Your task to perform on an android device: delete the emails in spam in the gmail app Image 0: 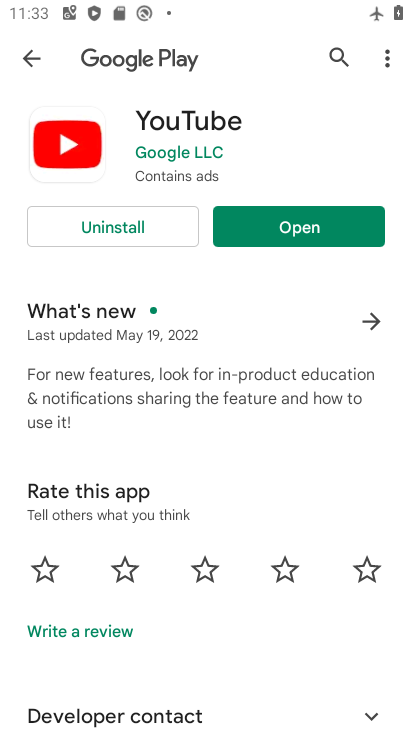
Step 0: press home button
Your task to perform on an android device: delete the emails in spam in the gmail app Image 1: 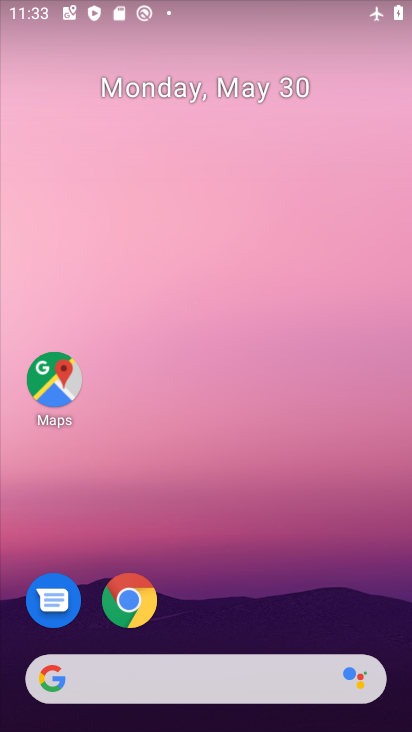
Step 1: drag from (226, 724) to (235, 94)
Your task to perform on an android device: delete the emails in spam in the gmail app Image 2: 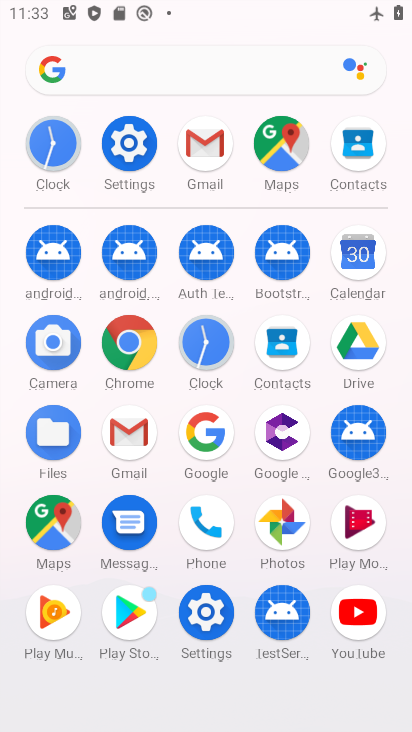
Step 2: click (131, 433)
Your task to perform on an android device: delete the emails in spam in the gmail app Image 3: 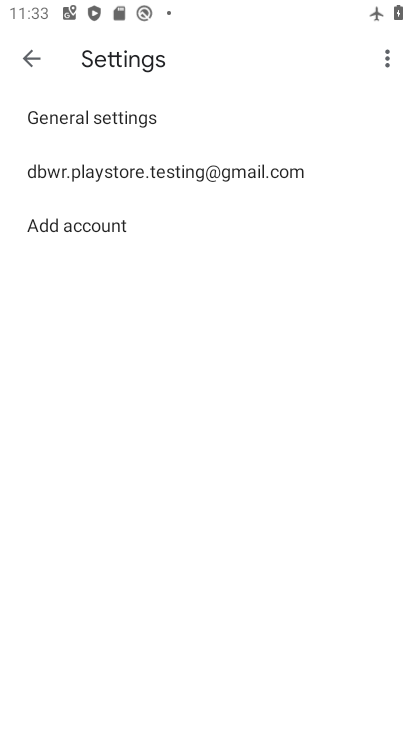
Step 3: click (131, 433)
Your task to perform on an android device: delete the emails in spam in the gmail app Image 4: 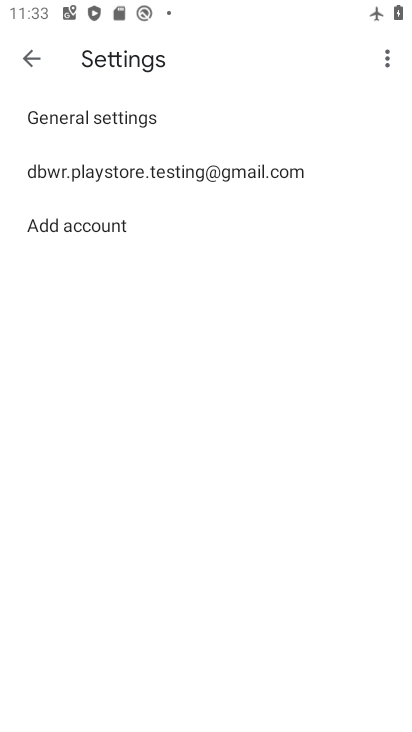
Step 4: click (26, 57)
Your task to perform on an android device: delete the emails in spam in the gmail app Image 5: 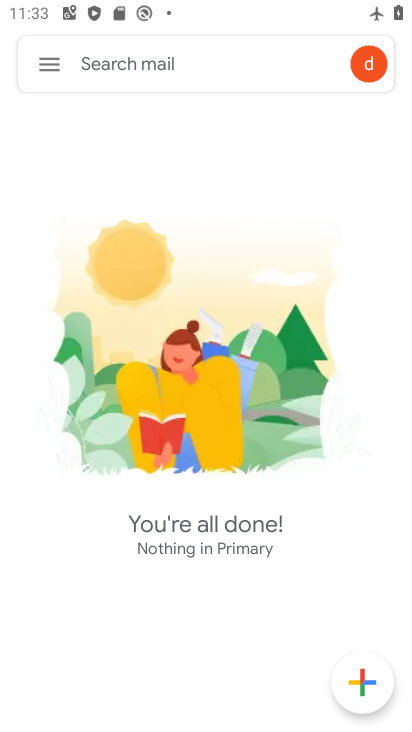
Step 5: task complete